Your task to perform on an android device: What's the weather going to be tomorrow? Image 0: 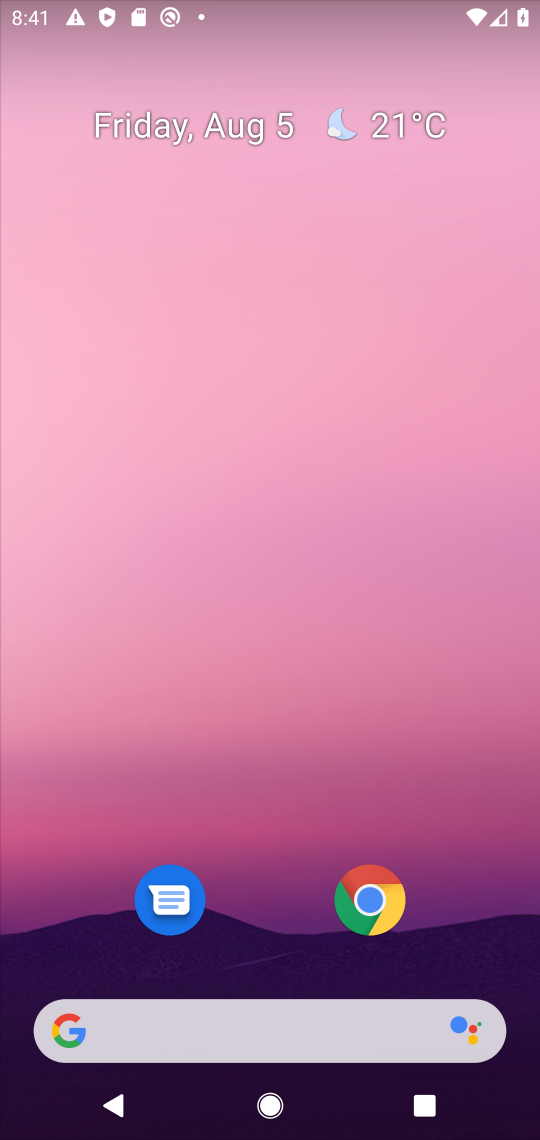
Step 0: press home button
Your task to perform on an android device: What's the weather going to be tomorrow? Image 1: 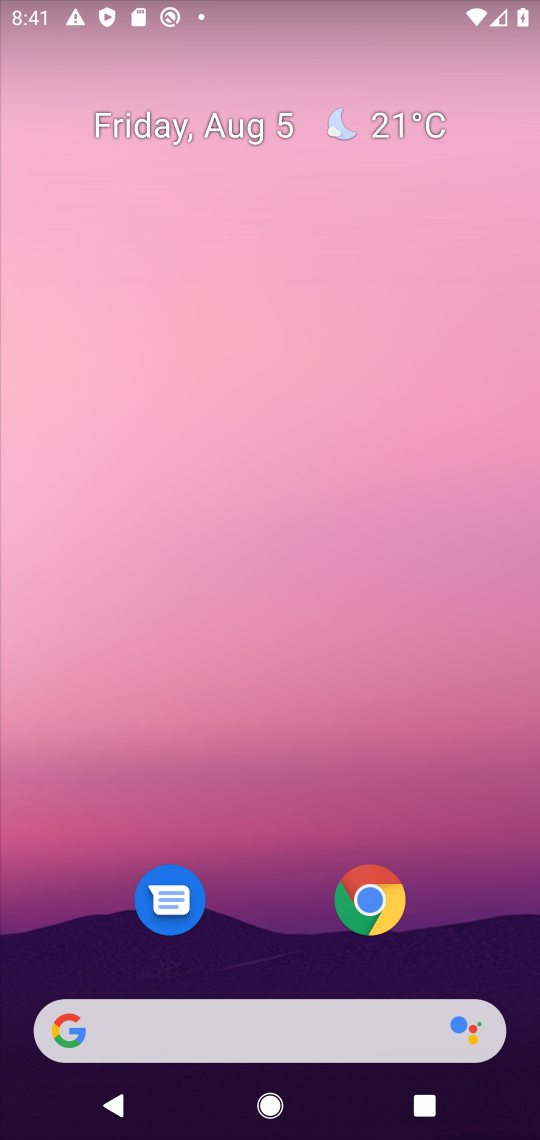
Step 1: click (371, 922)
Your task to perform on an android device: What's the weather going to be tomorrow? Image 2: 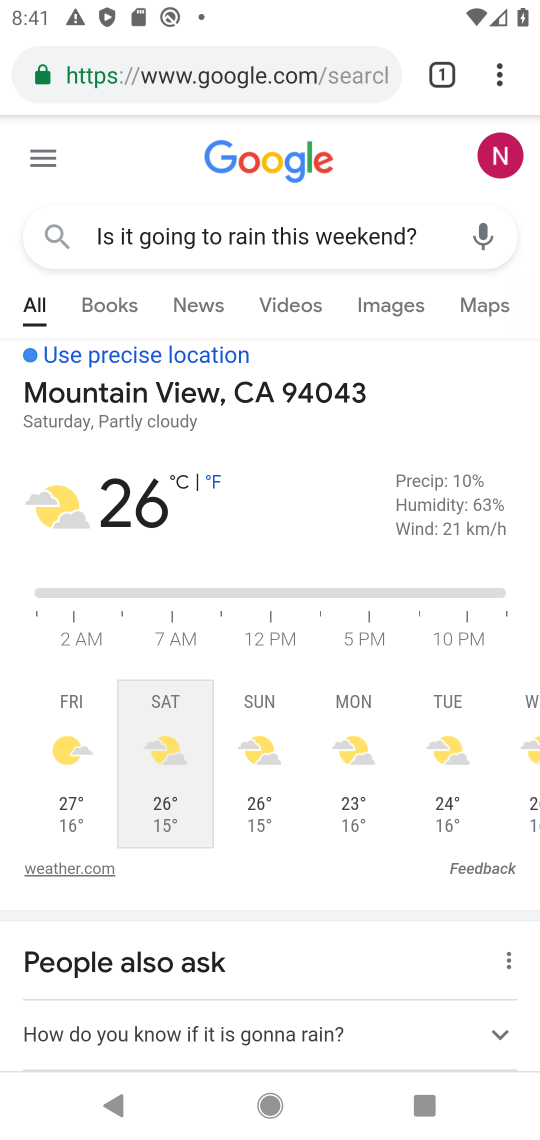
Step 2: click (203, 74)
Your task to perform on an android device: What's the weather going to be tomorrow? Image 3: 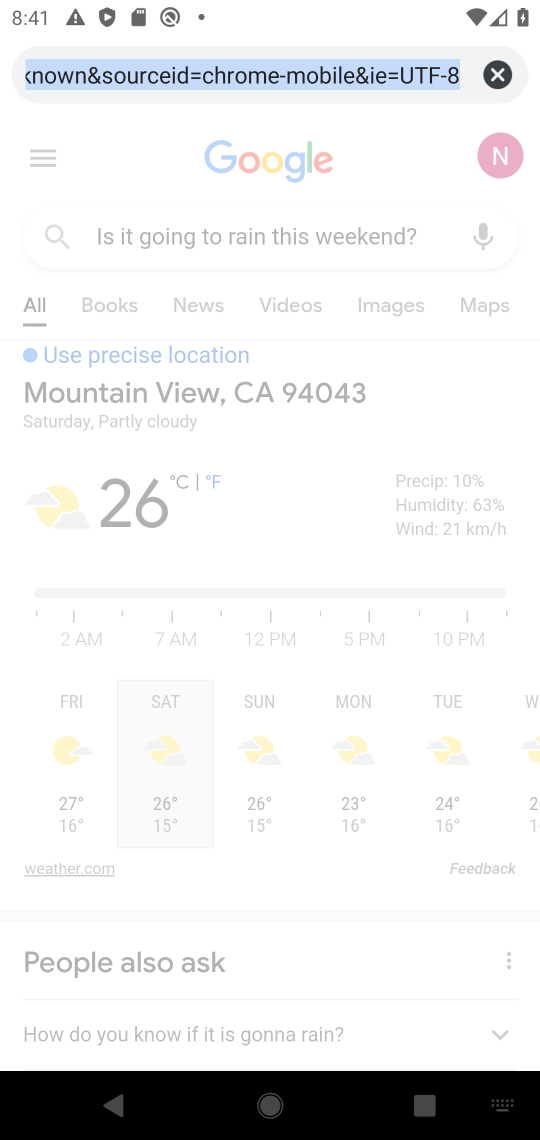
Step 3: type "What's the weather going to be tomorrow?"
Your task to perform on an android device: What's the weather going to be tomorrow? Image 4: 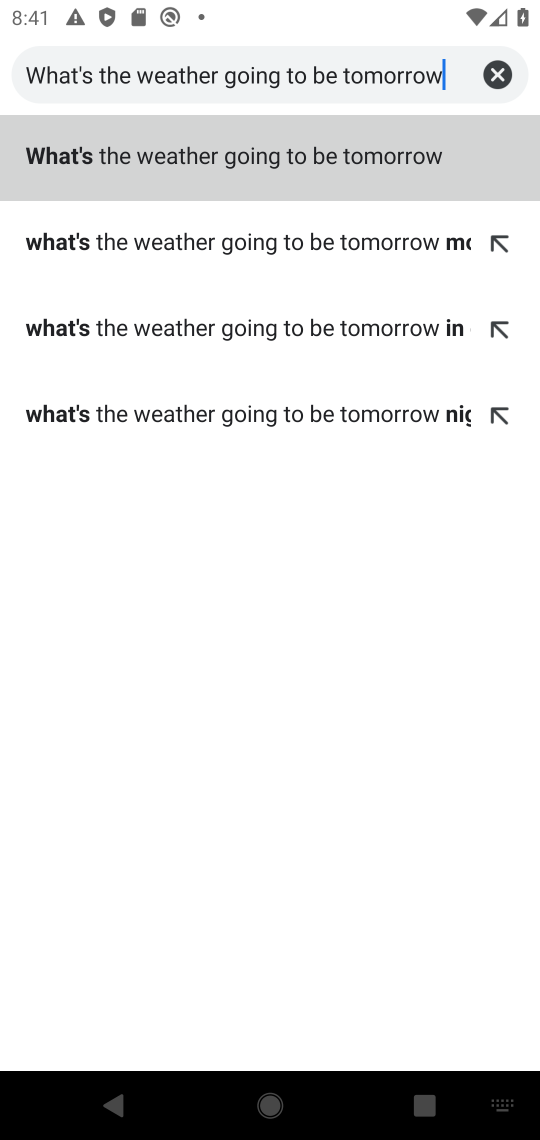
Step 4: type ""
Your task to perform on an android device: What's the weather going to be tomorrow? Image 5: 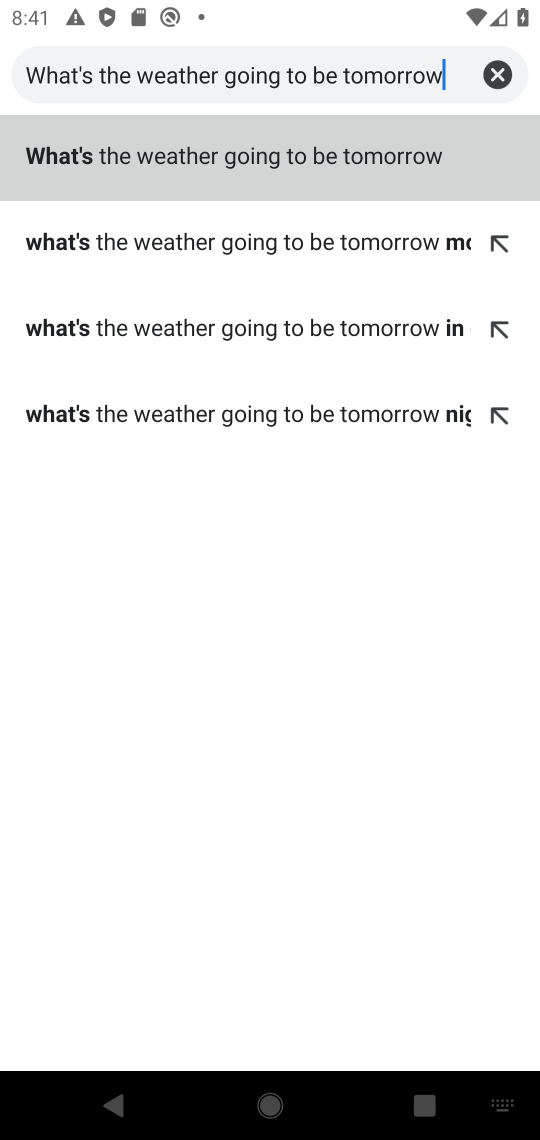
Step 5: click (104, 161)
Your task to perform on an android device: What's the weather going to be tomorrow? Image 6: 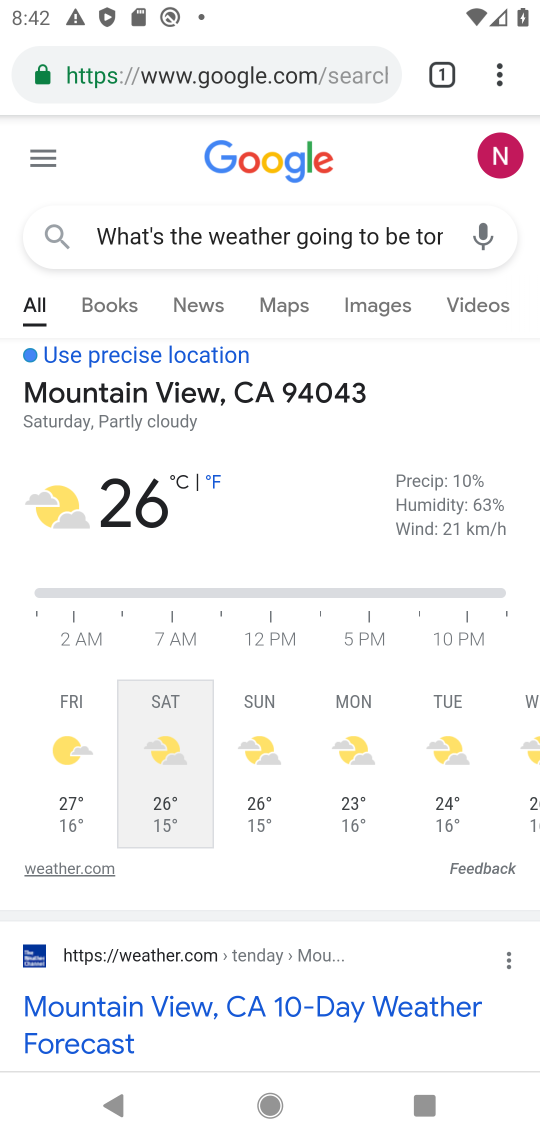
Step 6: task complete